Your task to perform on an android device: Go to battery settings Image 0: 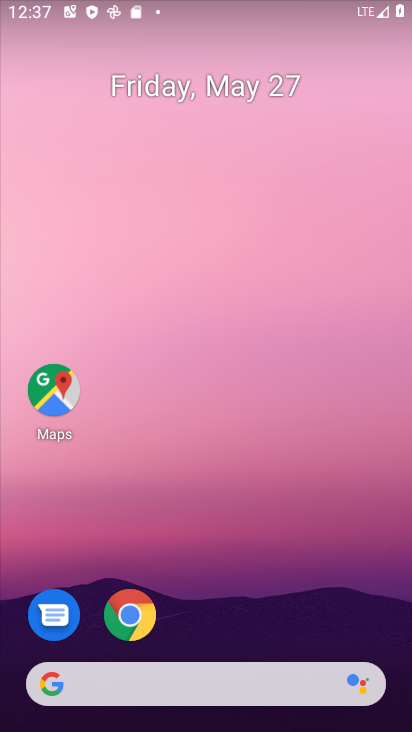
Step 0: drag from (130, 688) to (266, 41)
Your task to perform on an android device: Go to battery settings Image 1: 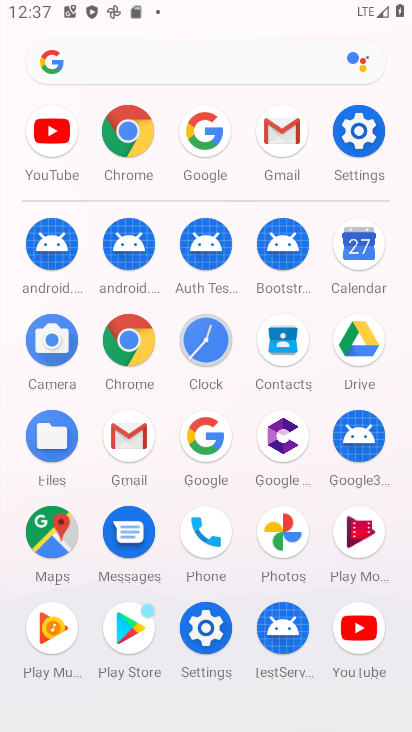
Step 1: click (220, 627)
Your task to perform on an android device: Go to battery settings Image 2: 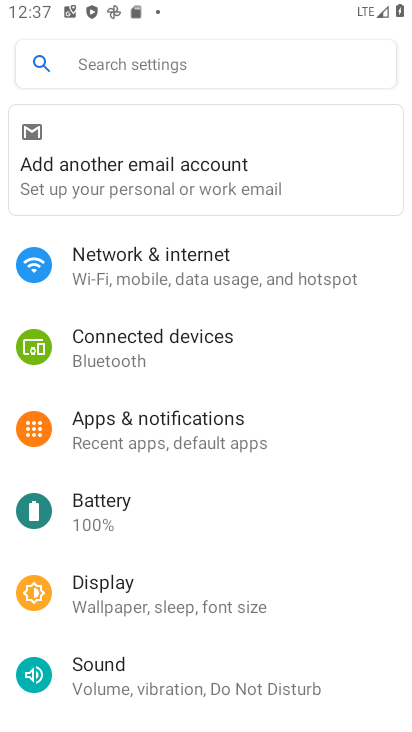
Step 2: click (181, 519)
Your task to perform on an android device: Go to battery settings Image 3: 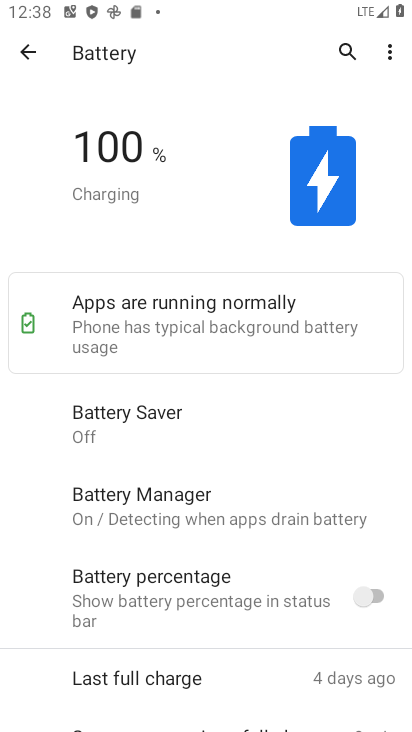
Step 3: task complete